Your task to perform on an android device: When is my next appointment? Image 0: 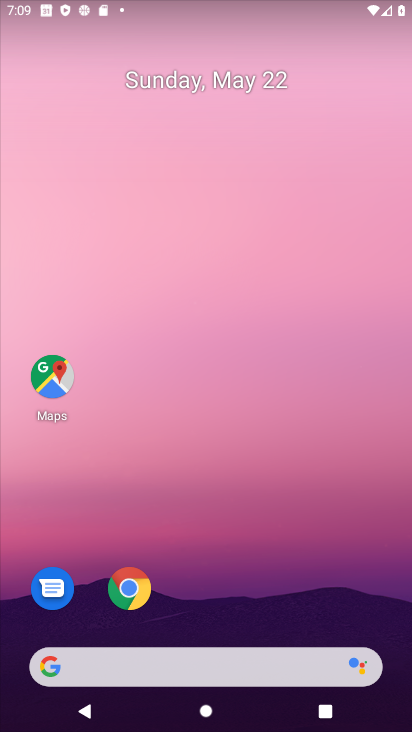
Step 0: drag from (241, 548) to (181, 13)
Your task to perform on an android device: When is my next appointment? Image 1: 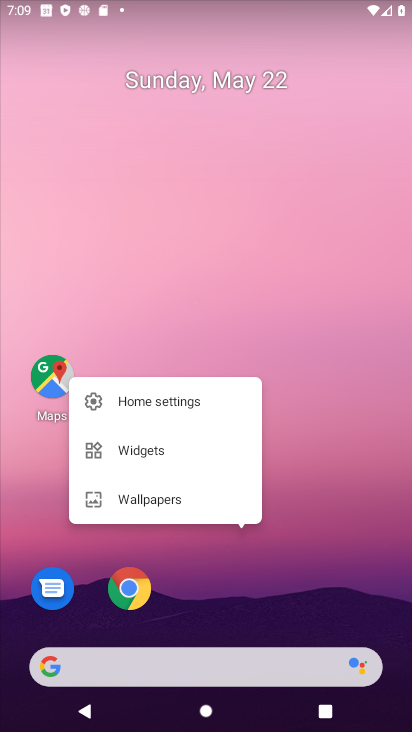
Step 1: click (292, 347)
Your task to perform on an android device: When is my next appointment? Image 2: 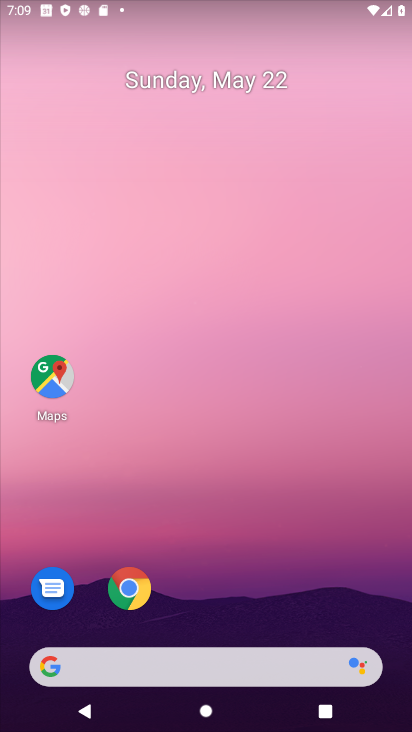
Step 2: drag from (298, 478) to (261, 25)
Your task to perform on an android device: When is my next appointment? Image 3: 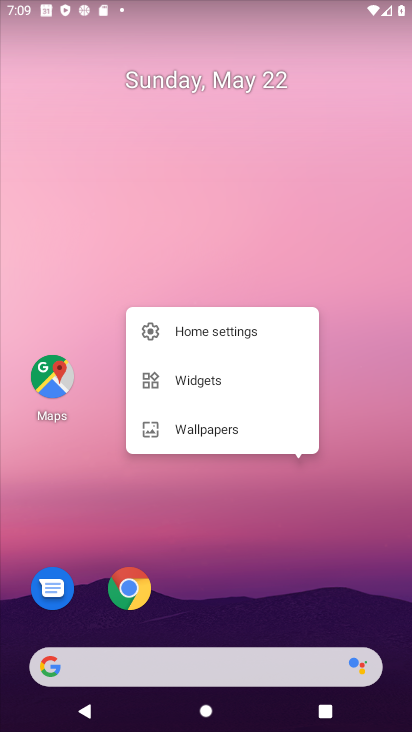
Step 3: click (235, 521)
Your task to perform on an android device: When is my next appointment? Image 4: 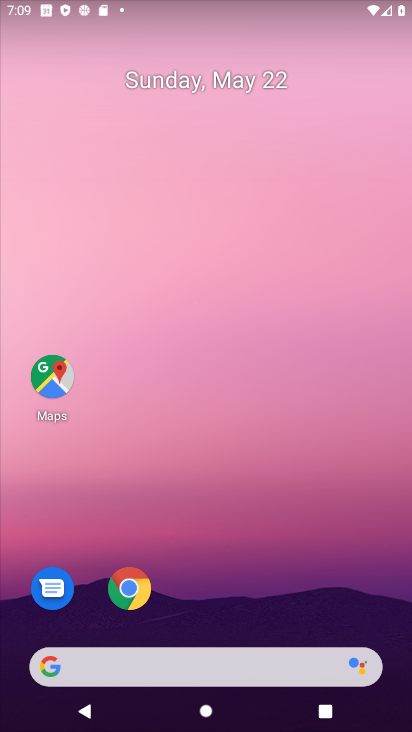
Step 4: drag from (246, 585) to (221, 97)
Your task to perform on an android device: When is my next appointment? Image 5: 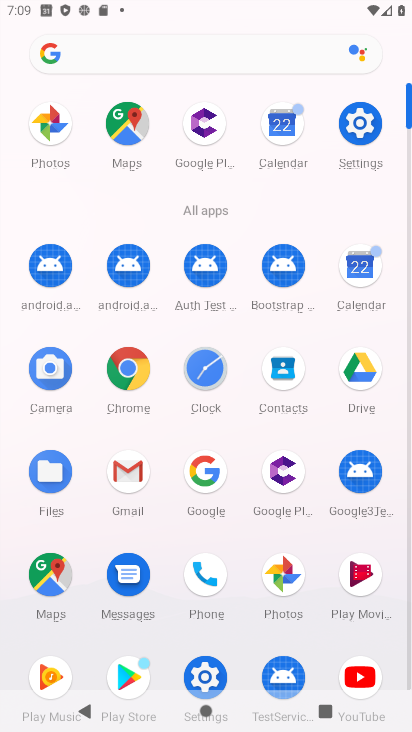
Step 5: click (363, 268)
Your task to perform on an android device: When is my next appointment? Image 6: 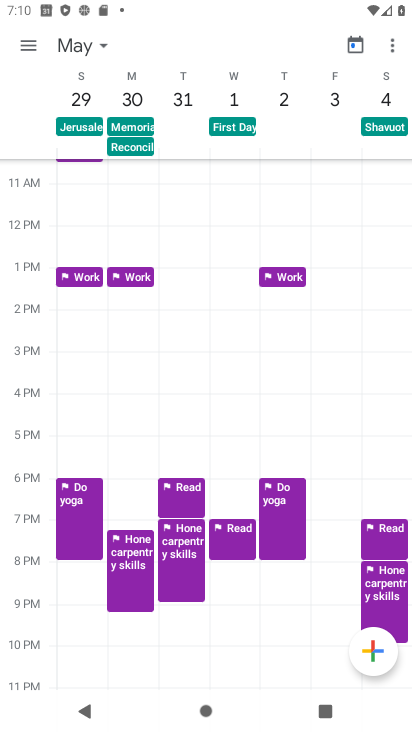
Step 6: click (100, 50)
Your task to perform on an android device: When is my next appointment? Image 7: 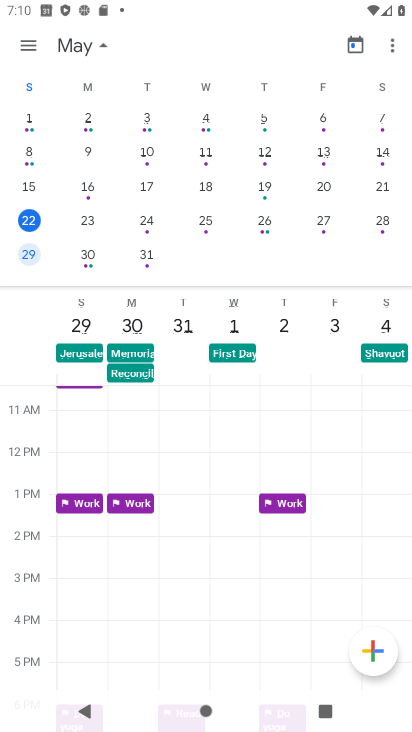
Step 7: click (85, 223)
Your task to perform on an android device: When is my next appointment? Image 8: 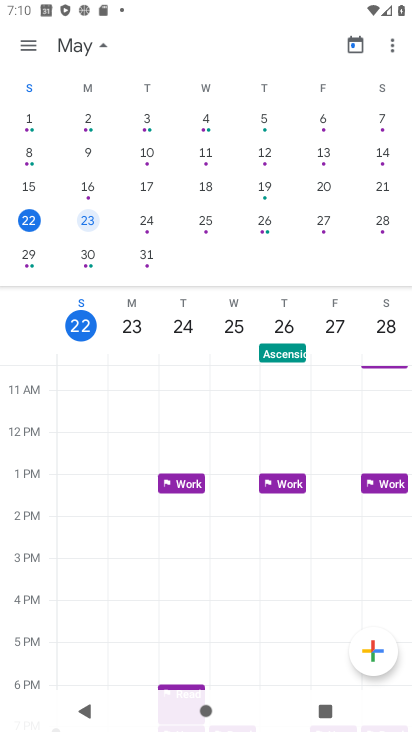
Step 8: task complete